Your task to perform on an android device: Go to settings Image 0: 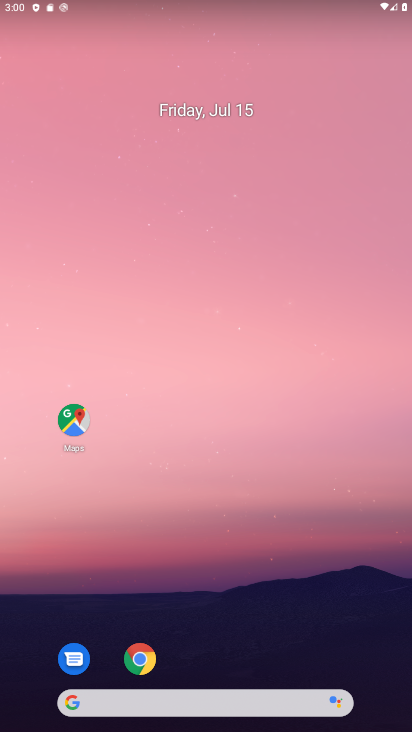
Step 0: drag from (210, 434) to (235, 249)
Your task to perform on an android device: Go to settings Image 1: 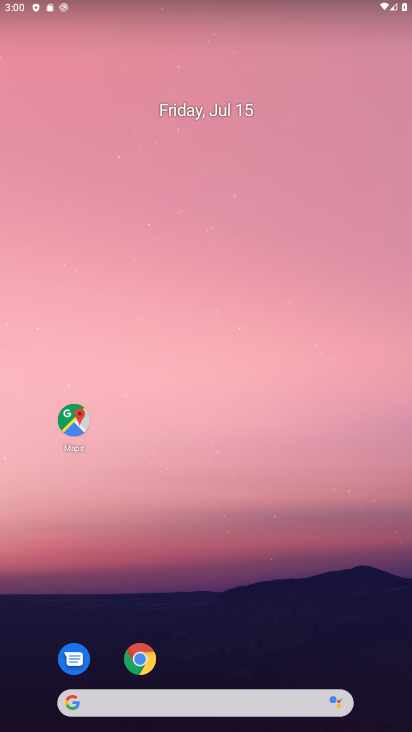
Step 1: drag from (216, 328) to (216, 171)
Your task to perform on an android device: Go to settings Image 2: 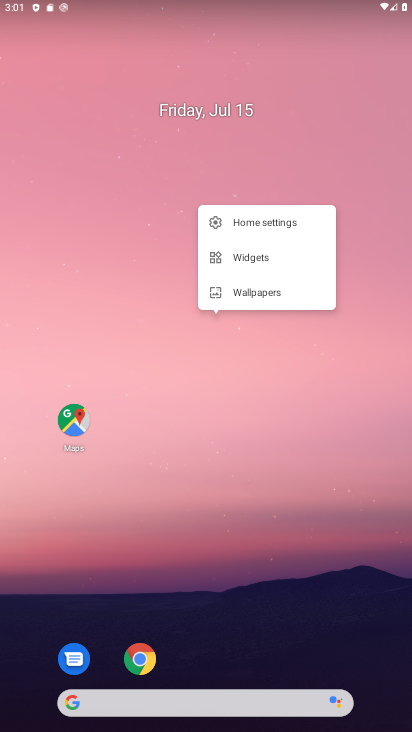
Step 2: click (260, 159)
Your task to perform on an android device: Go to settings Image 3: 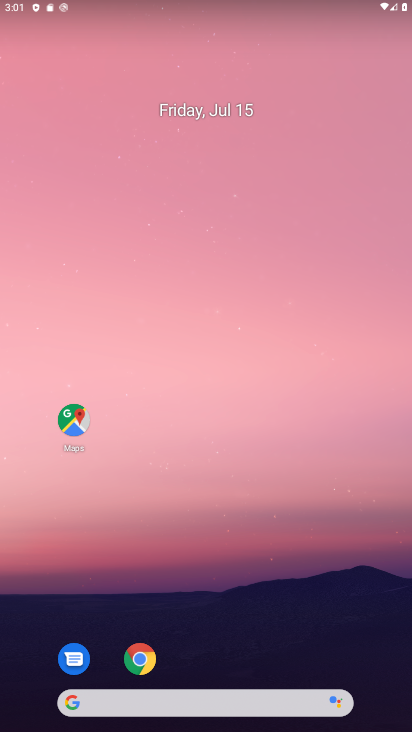
Step 3: drag from (233, 195) to (252, 38)
Your task to perform on an android device: Go to settings Image 4: 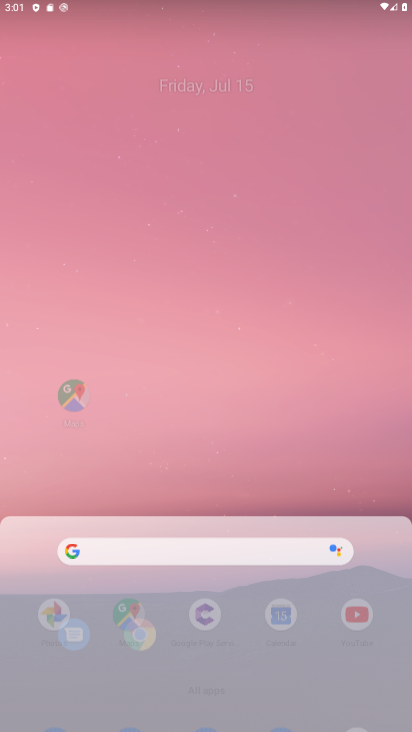
Step 4: drag from (203, 633) to (196, 71)
Your task to perform on an android device: Go to settings Image 5: 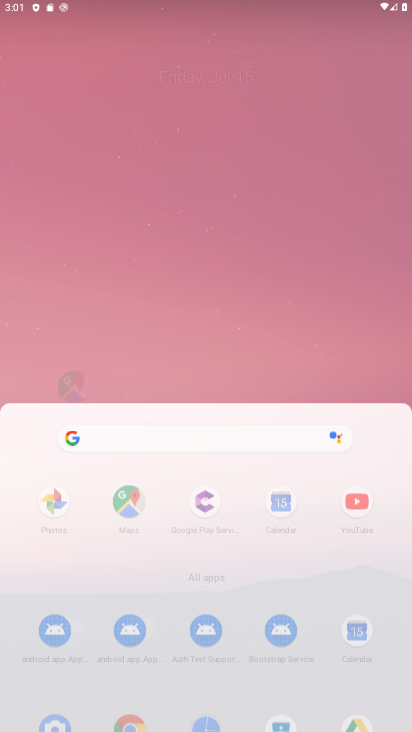
Step 5: press home button
Your task to perform on an android device: Go to settings Image 6: 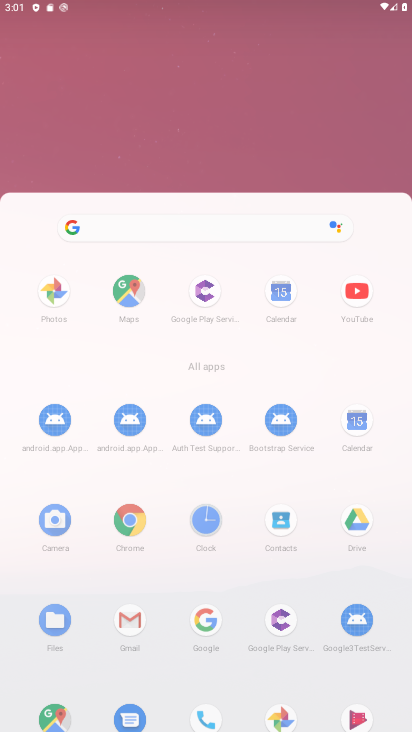
Step 6: press home button
Your task to perform on an android device: Go to settings Image 7: 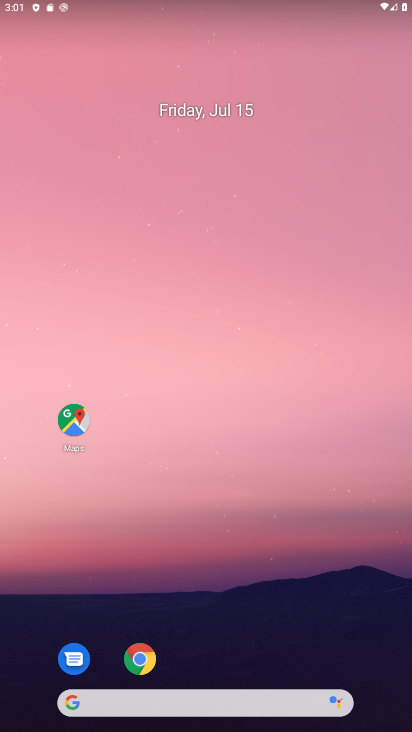
Step 7: press home button
Your task to perform on an android device: Go to settings Image 8: 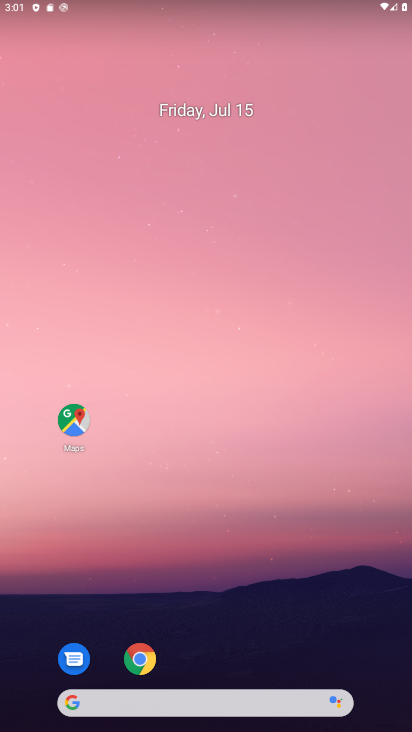
Step 8: click (244, 177)
Your task to perform on an android device: Go to settings Image 9: 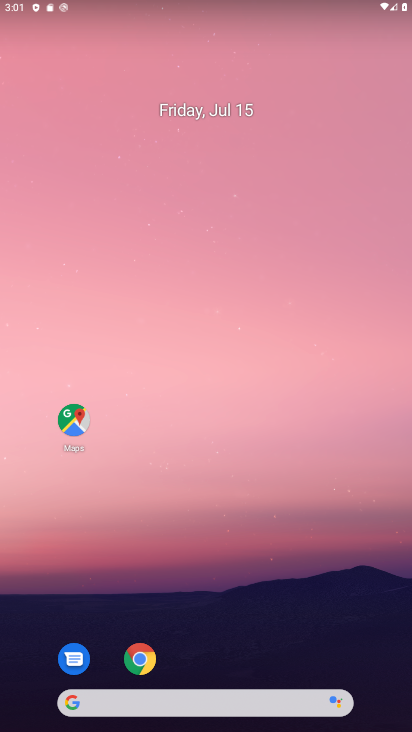
Step 9: drag from (236, 606) to (261, 117)
Your task to perform on an android device: Go to settings Image 10: 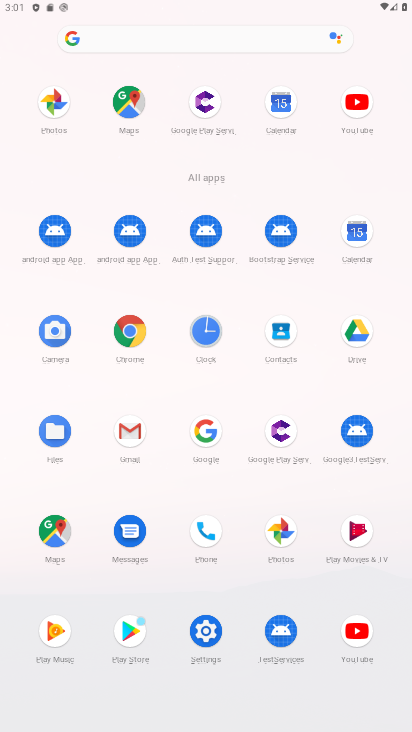
Step 10: drag from (206, 638) to (327, 17)
Your task to perform on an android device: Go to settings Image 11: 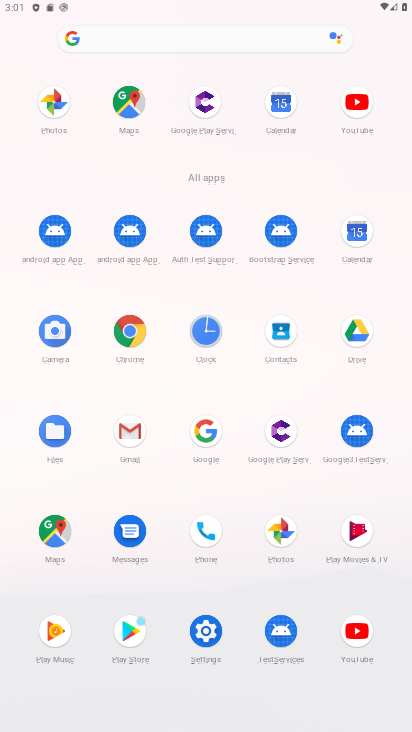
Step 11: click (205, 627)
Your task to perform on an android device: Go to settings Image 12: 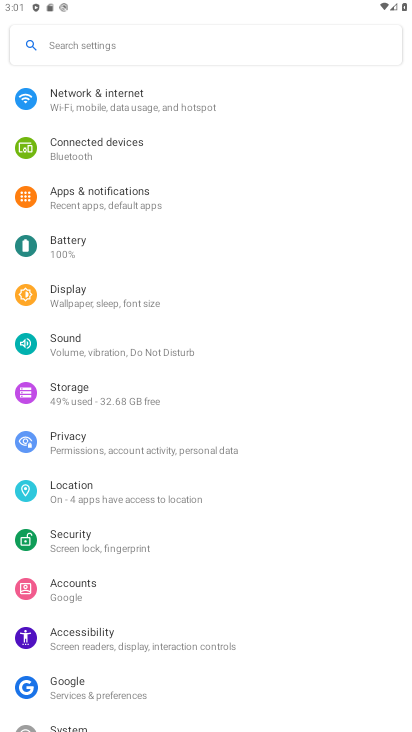
Step 12: click (210, 624)
Your task to perform on an android device: Go to settings Image 13: 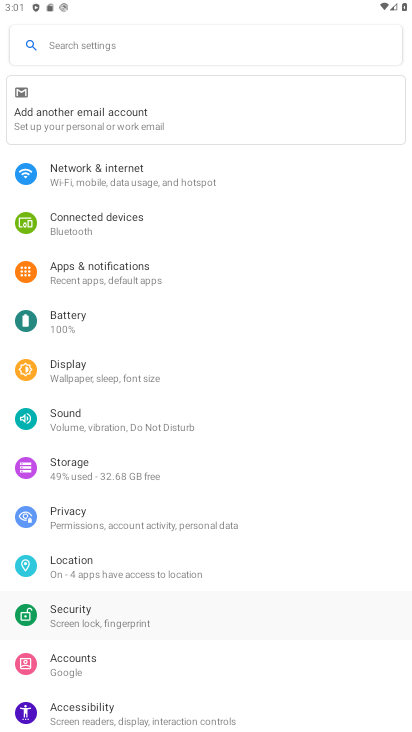
Step 13: drag from (251, 243) to (232, 80)
Your task to perform on an android device: Go to settings Image 14: 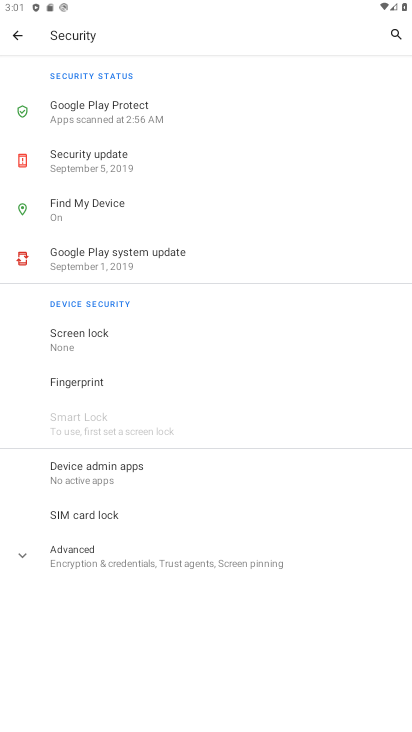
Step 14: drag from (243, 236) to (351, 729)
Your task to perform on an android device: Go to settings Image 15: 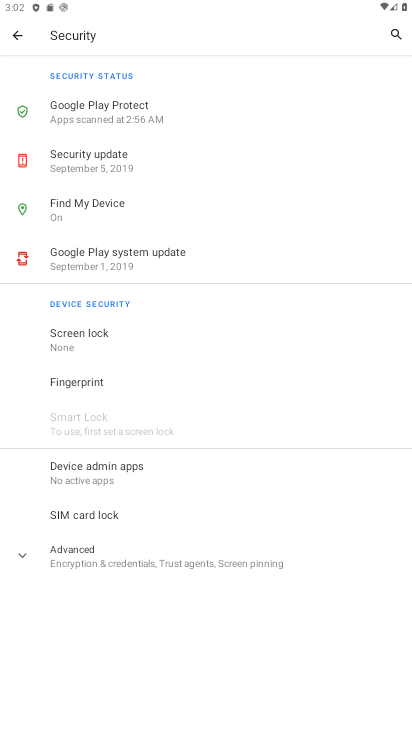
Step 15: press home button
Your task to perform on an android device: Go to settings Image 16: 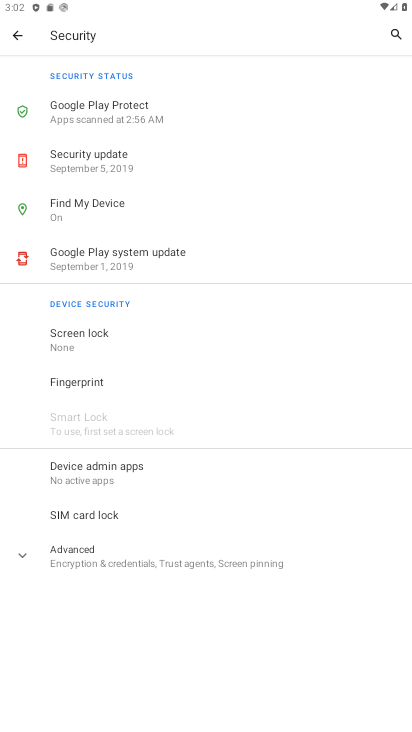
Step 16: drag from (215, 416) to (279, 110)
Your task to perform on an android device: Go to settings Image 17: 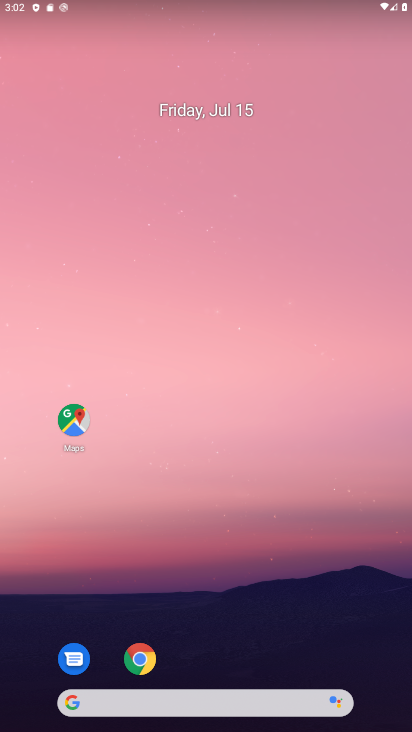
Step 17: drag from (199, 598) to (208, 485)
Your task to perform on an android device: Go to settings Image 18: 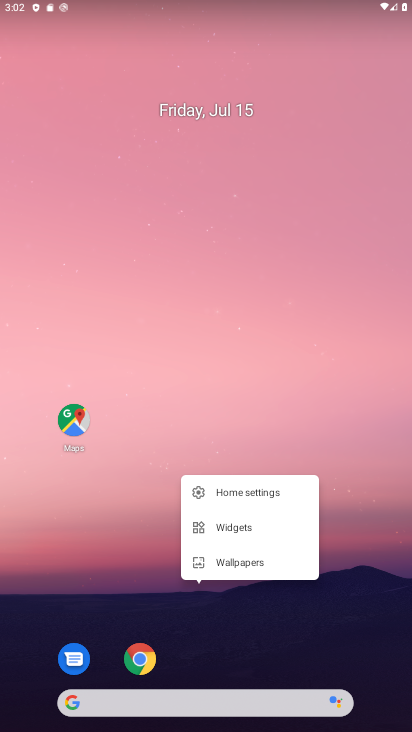
Step 18: drag from (217, 652) to (182, 10)
Your task to perform on an android device: Go to settings Image 19: 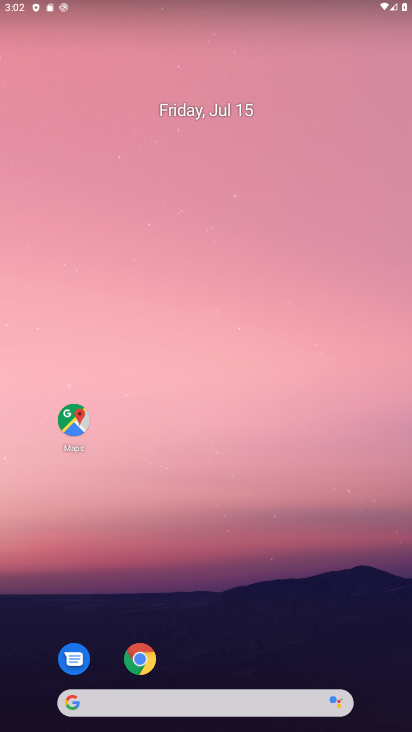
Step 19: drag from (203, 673) to (312, 67)
Your task to perform on an android device: Go to settings Image 20: 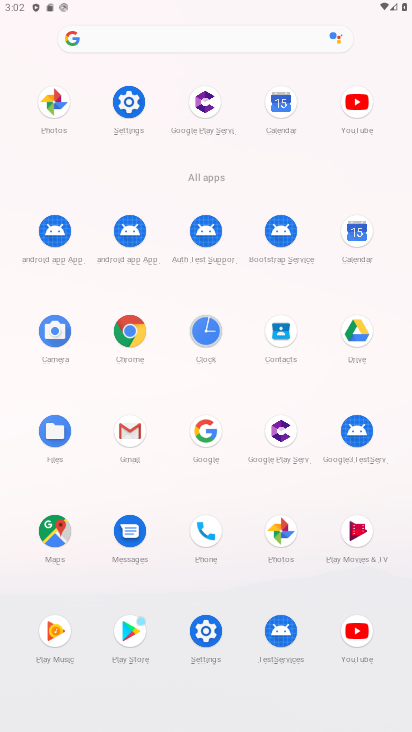
Step 20: click (130, 88)
Your task to perform on an android device: Go to settings Image 21: 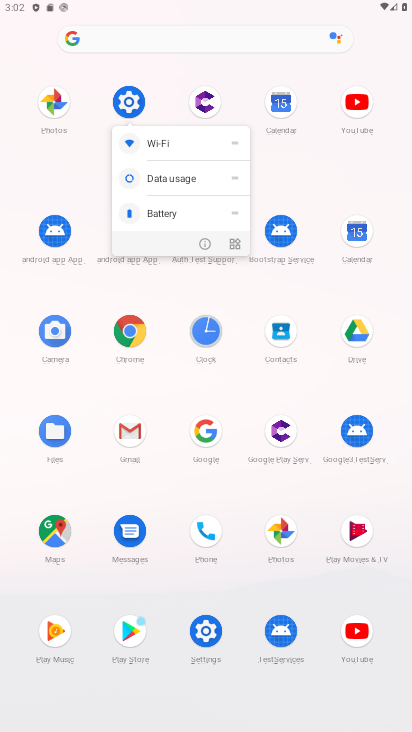
Step 21: click (206, 244)
Your task to perform on an android device: Go to settings Image 22: 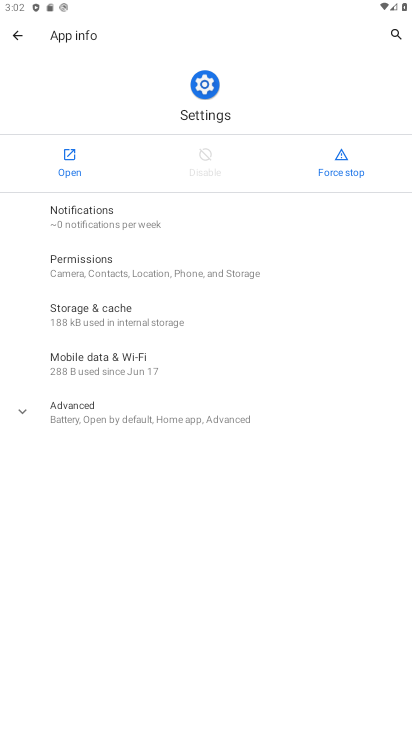
Step 22: click (73, 156)
Your task to perform on an android device: Go to settings Image 23: 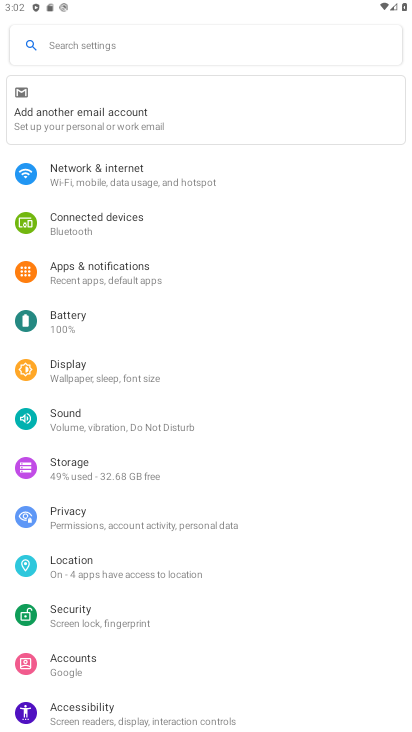
Step 23: task complete